Your task to perform on an android device: install app "HBO Max: Stream TV & Movies" Image 0: 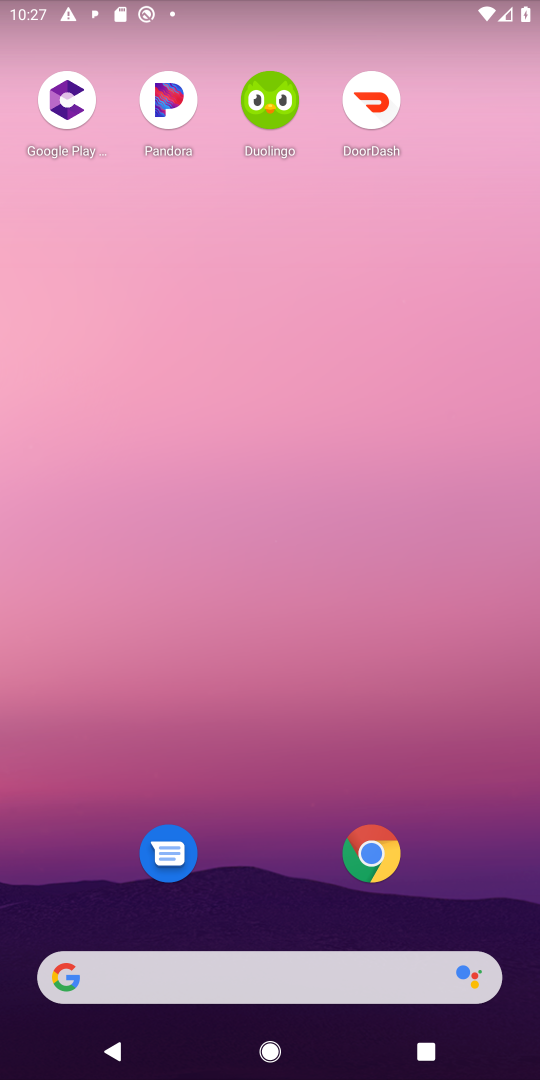
Step 0: drag from (319, 978) to (461, 243)
Your task to perform on an android device: install app "HBO Max: Stream TV & Movies" Image 1: 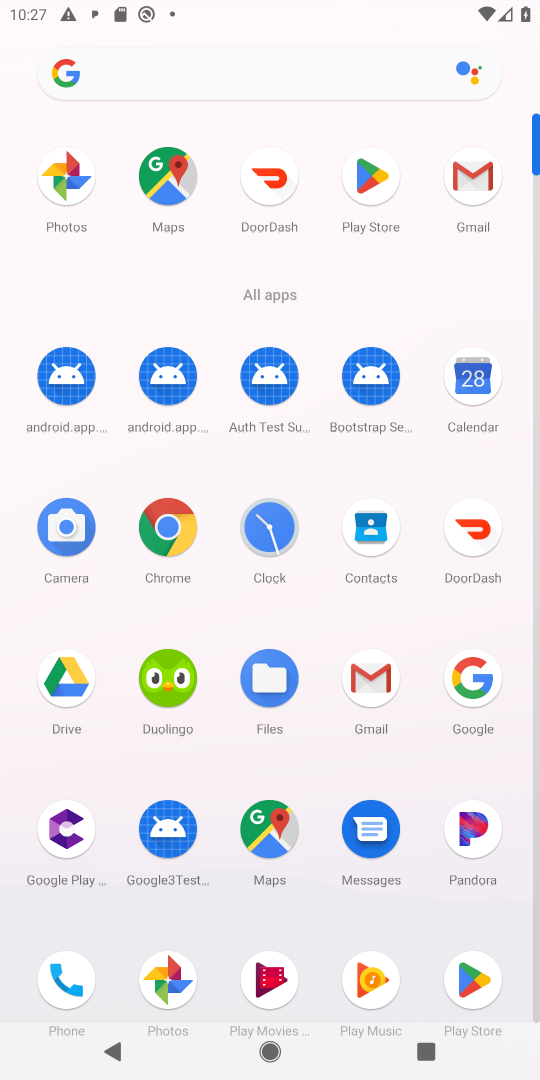
Step 1: click (369, 173)
Your task to perform on an android device: install app "HBO Max: Stream TV & Movies" Image 2: 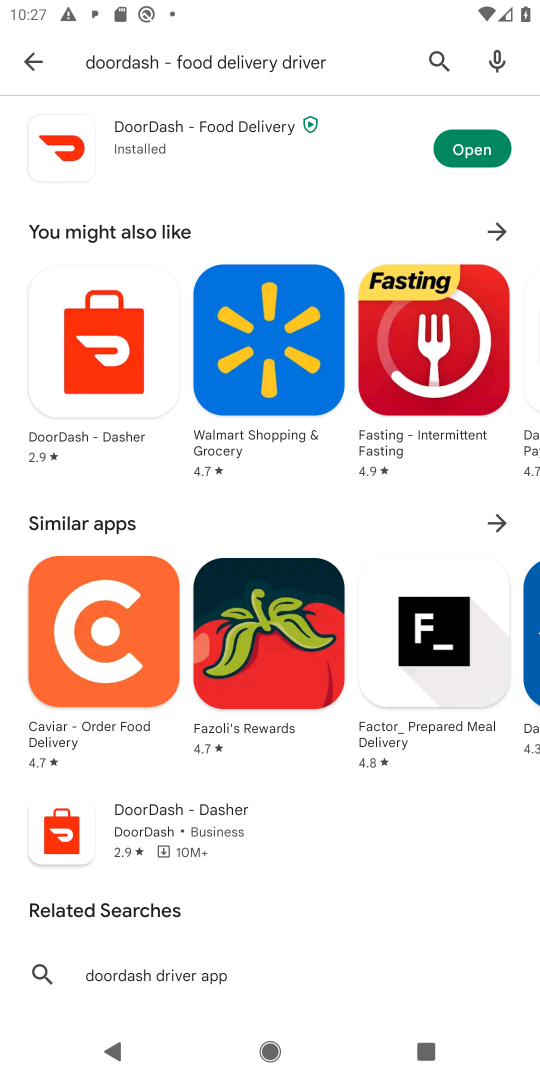
Step 2: click (441, 63)
Your task to perform on an android device: install app "HBO Max: Stream TV & Movies" Image 3: 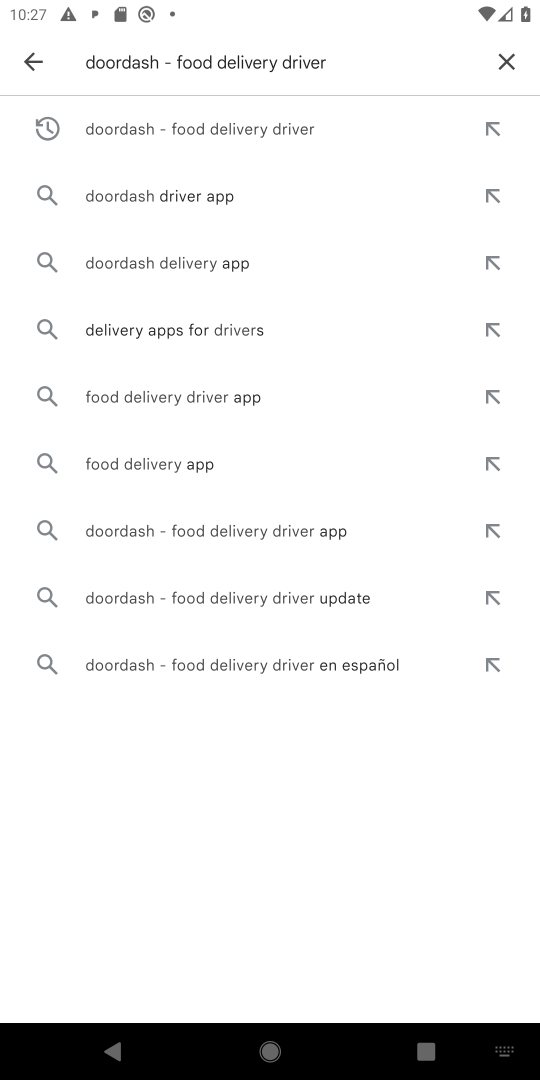
Step 3: click (503, 57)
Your task to perform on an android device: install app "HBO Max: Stream TV & Movies" Image 4: 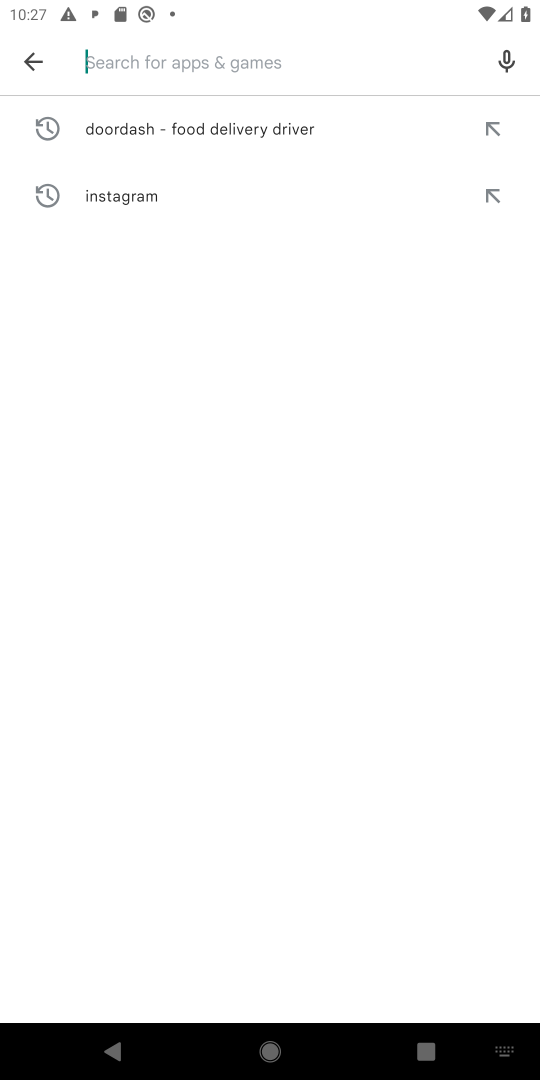
Step 4: type "HBO Max: Stream TV & Movies"
Your task to perform on an android device: install app "HBO Max: Stream TV & Movies" Image 5: 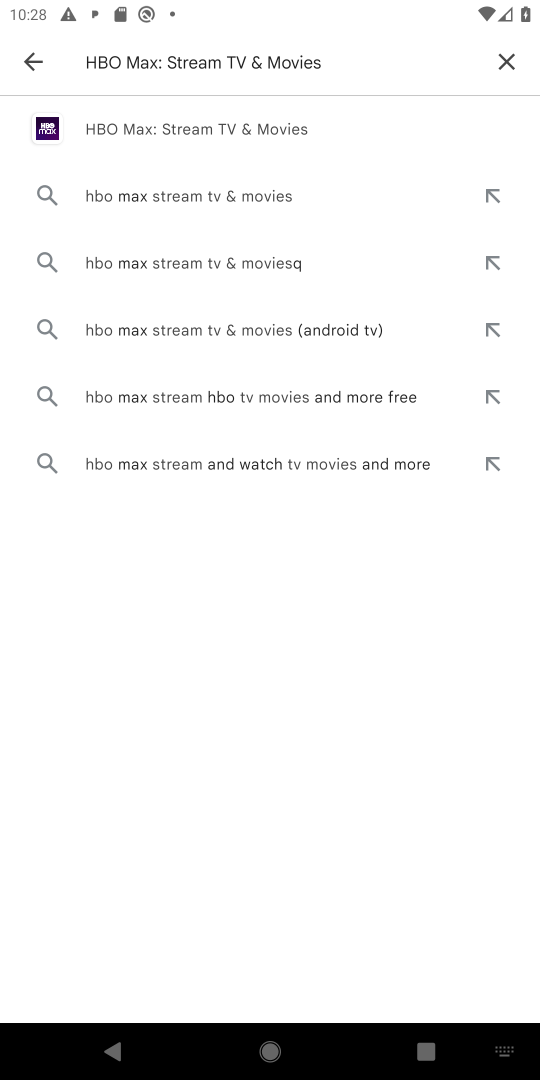
Step 5: click (300, 126)
Your task to perform on an android device: install app "HBO Max: Stream TV & Movies" Image 6: 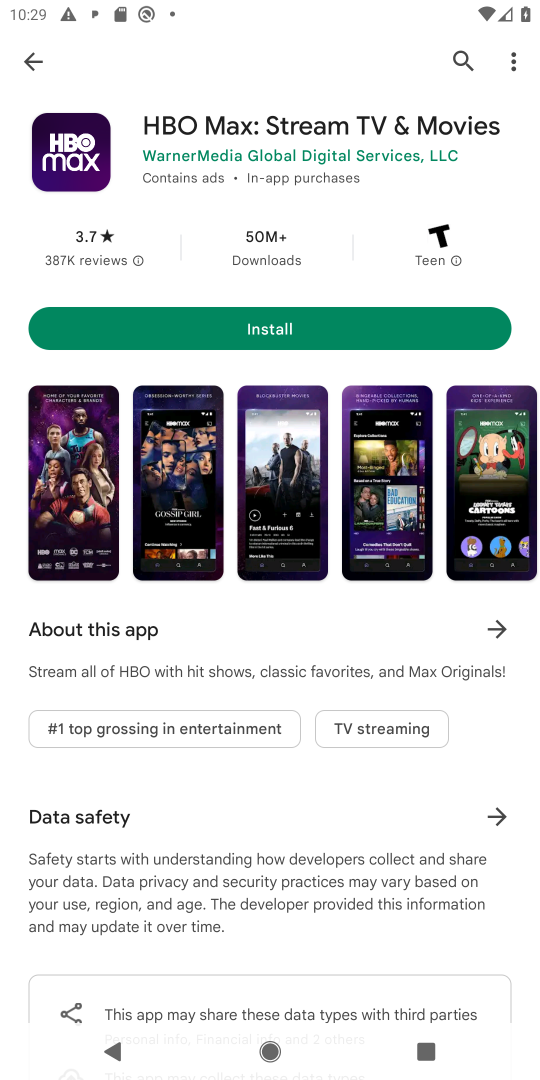
Step 6: click (286, 330)
Your task to perform on an android device: install app "HBO Max: Stream TV & Movies" Image 7: 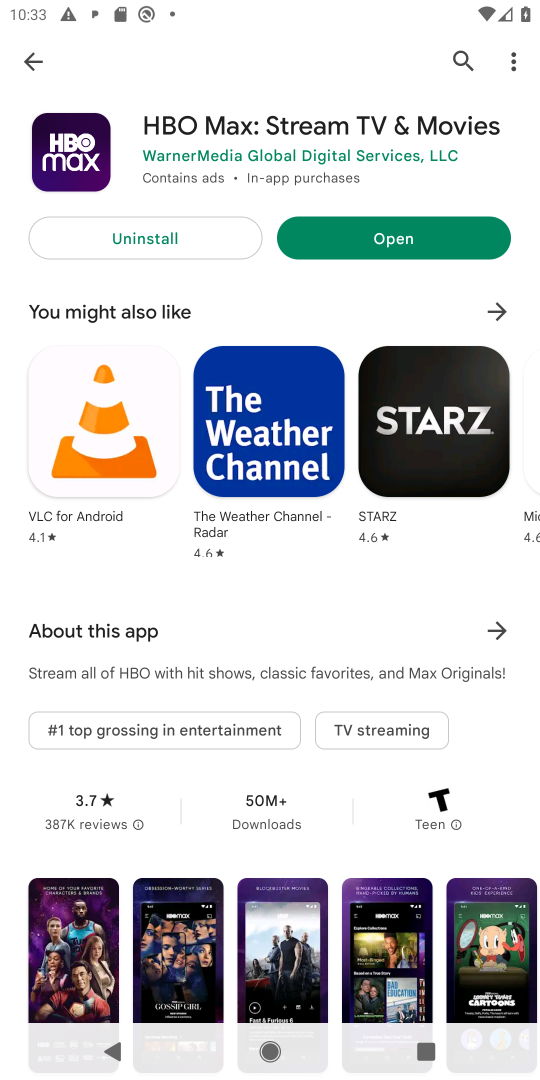
Step 7: task complete